Your task to perform on an android device: find photos in the google photos app Image 0: 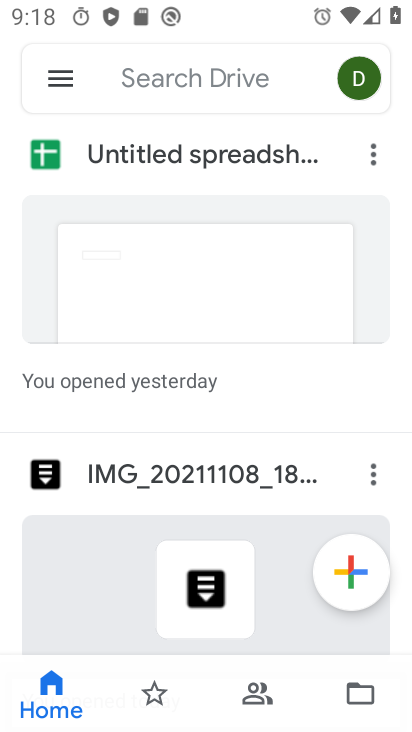
Step 0: press home button
Your task to perform on an android device: find photos in the google photos app Image 1: 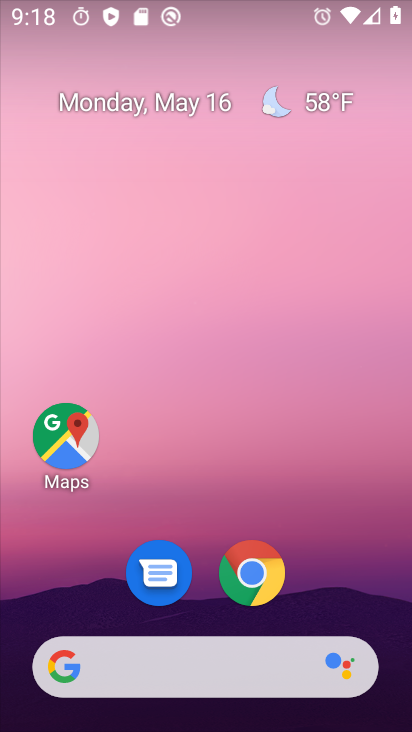
Step 1: drag from (349, 621) to (150, 244)
Your task to perform on an android device: find photos in the google photos app Image 2: 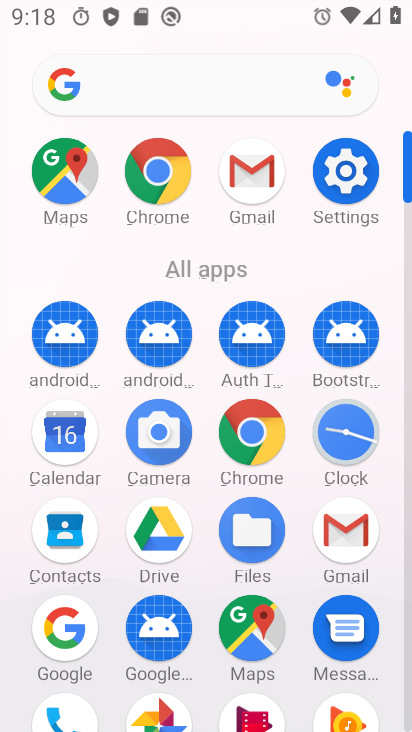
Step 2: drag from (298, 598) to (231, 130)
Your task to perform on an android device: find photos in the google photos app Image 3: 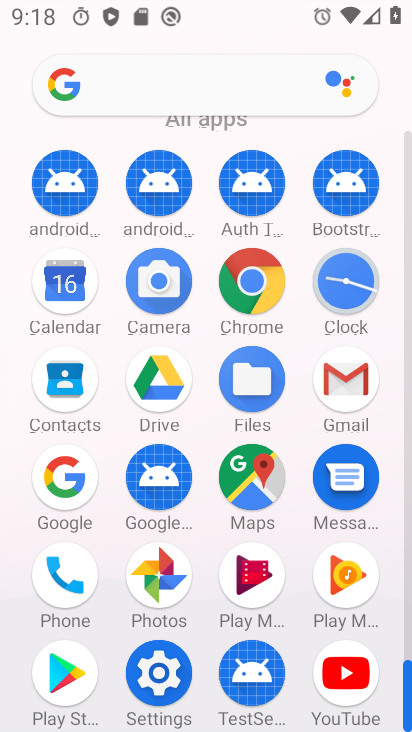
Step 3: click (165, 570)
Your task to perform on an android device: find photos in the google photos app Image 4: 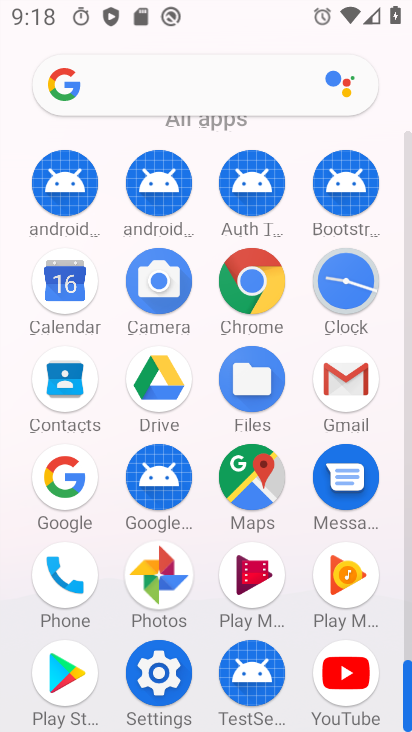
Step 4: click (169, 566)
Your task to perform on an android device: find photos in the google photos app Image 5: 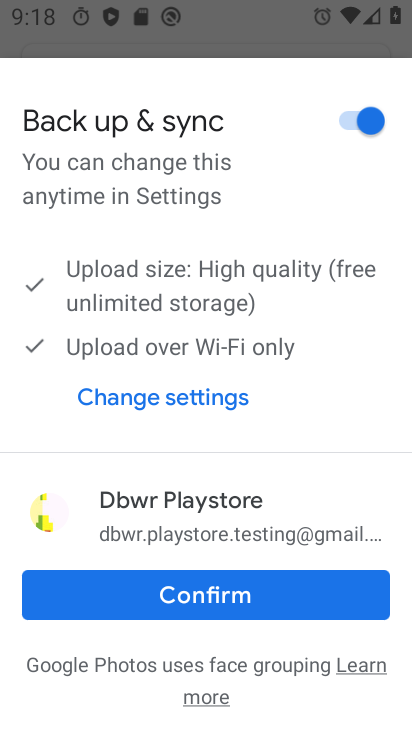
Step 5: click (214, 596)
Your task to perform on an android device: find photos in the google photos app Image 6: 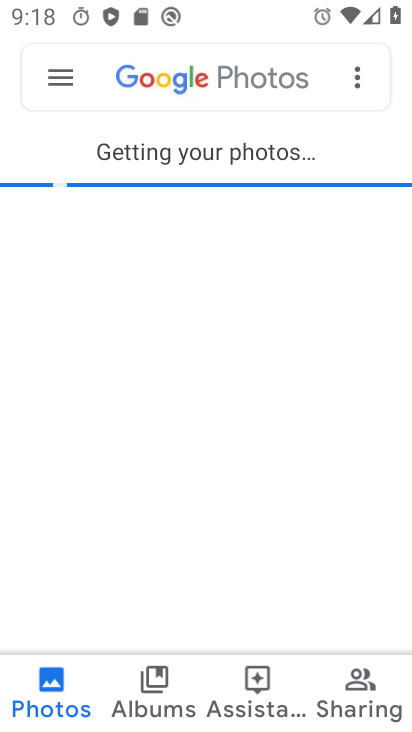
Step 6: click (214, 596)
Your task to perform on an android device: find photos in the google photos app Image 7: 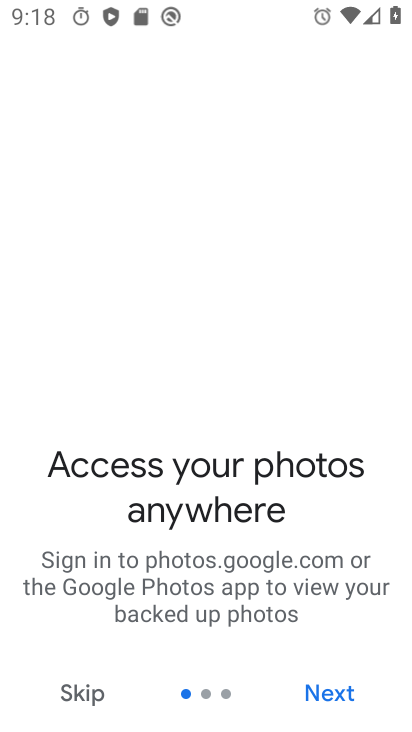
Step 7: click (317, 683)
Your task to perform on an android device: find photos in the google photos app Image 8: 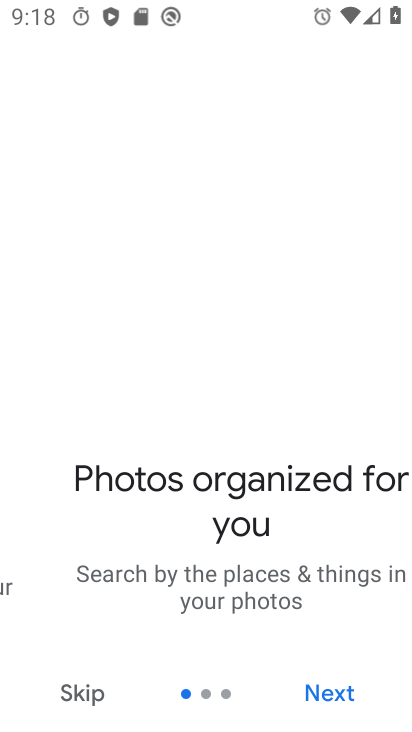
Step 8: click (317, 683)
Your task to perform on an android device: find photos in the google photos app Image 9: 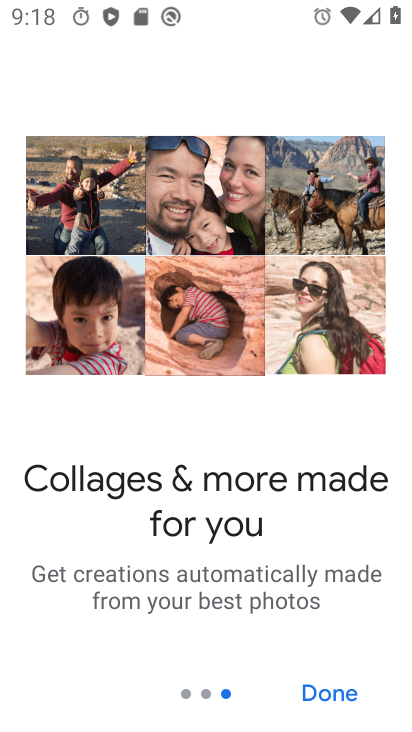
Step 9: click (317, 680)
Your task to perform on an android device: find photos in the google photos app Image 10: 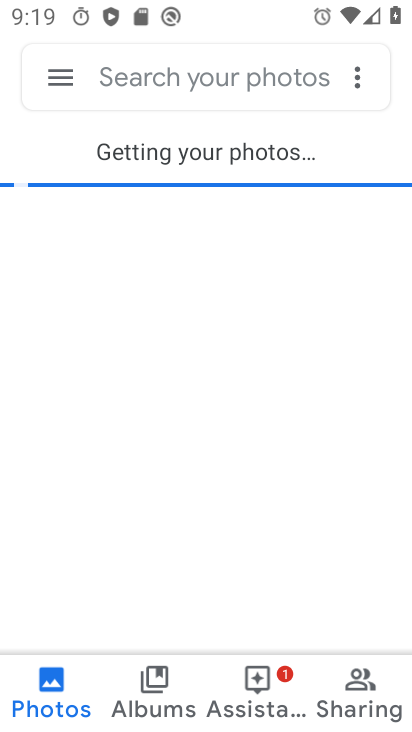
Step 10: click (317, 680)
Your task to perform on an android device: find photos in the google photos app Image 11: 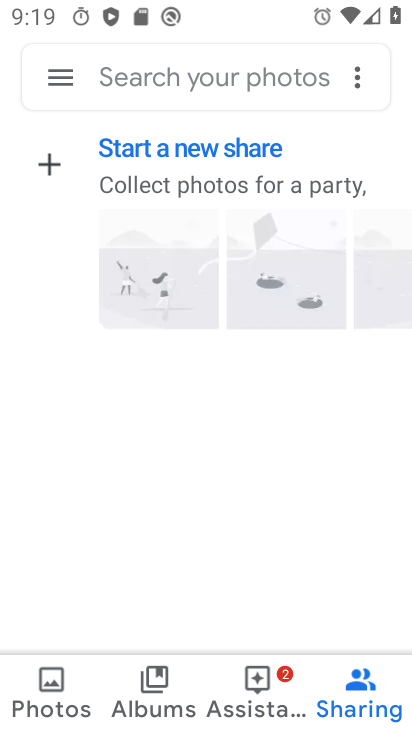
Step 11: task complete